Your task to perform on an android device: Open Youtube and go to "Your channel" Image 0: 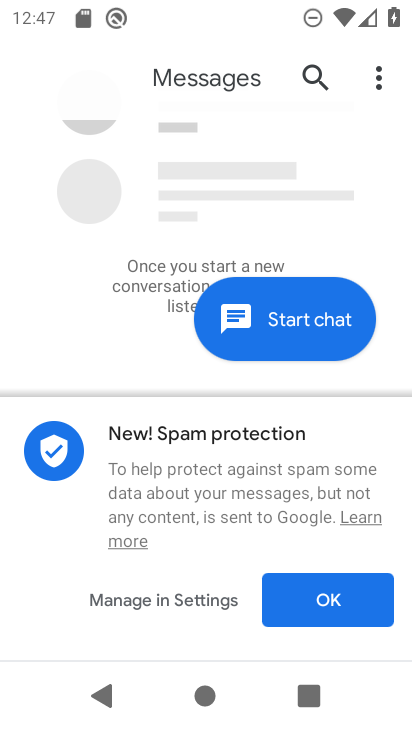
Step 0: click (378, 562)
Your task to perform on an android device: Open Youtube and go to "Your channel" Image 1: 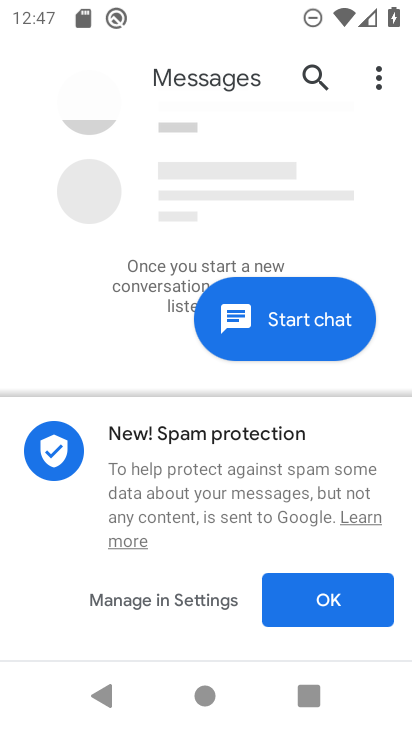
Step 1: press home button
Your task to perform on an android device: Open Youtube and go to "Your channel" Image 2: 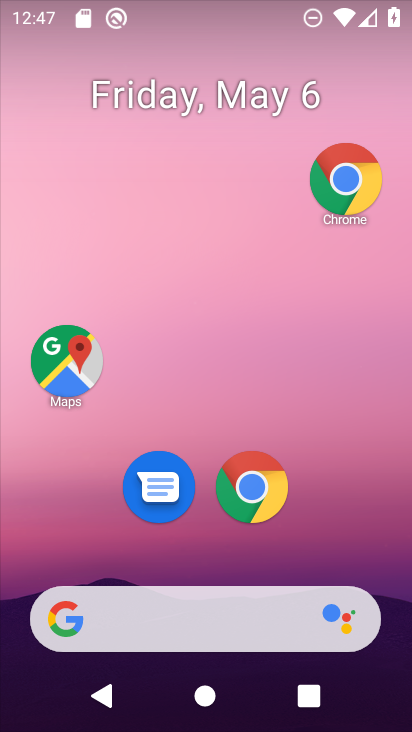
Step 2: drag from (318, 533) to (311, 101)
Your task to perform on an android device: Open Youtube and go to "Your channel" Image 3: 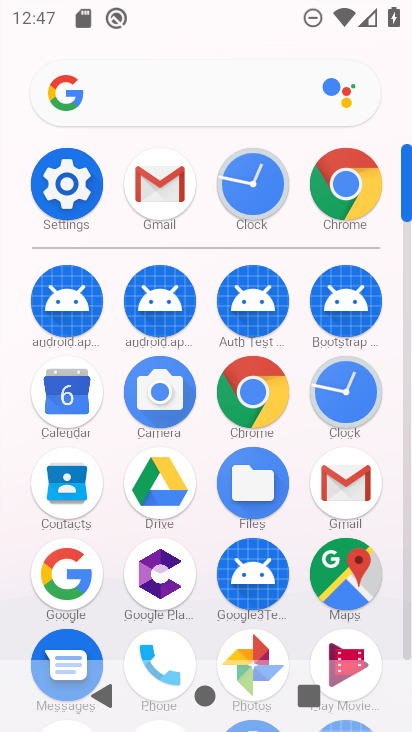
Step 3: click (410, 506)
Your task to perform on an android device: Open Youtube and go to "Your channel" Image 4: 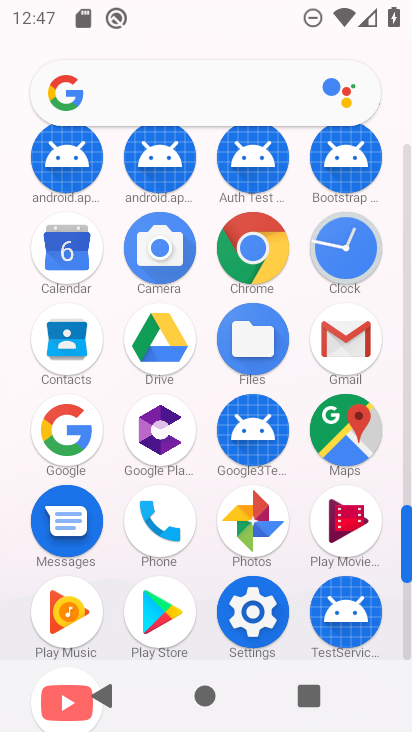
Step 4: click (408, 649)
Your task to perform on an android device: Open Youtube and go to "Your channel" Image 5: 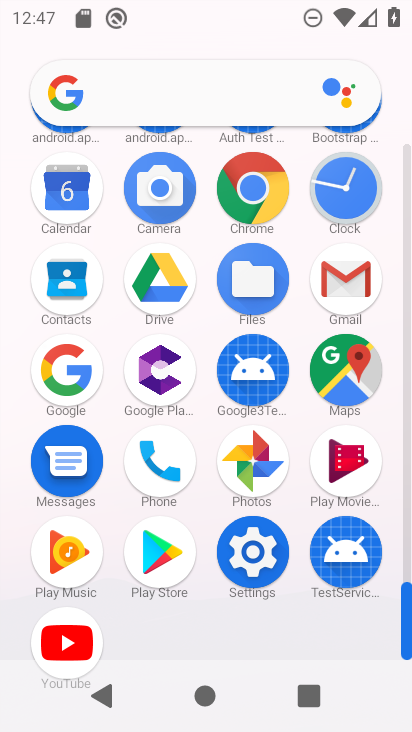
Step 5: click (46, 634)
Your task to perform on an android device: Open Youtube and go to "Your channel" Image 6: 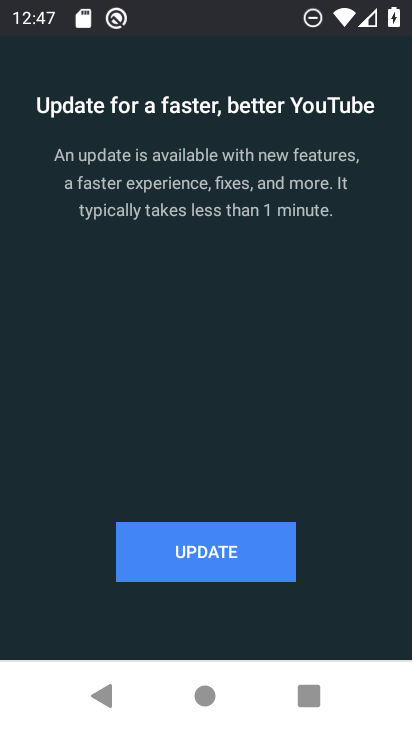
Step 6: click (244, 555)
Your task to perform on an android device: Open Youtube and go to "Your channel" Image 7: 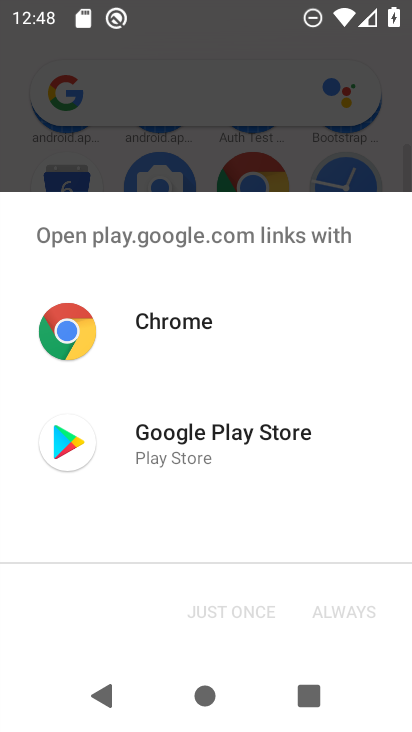
Step 7: click (188, 434)
Your task to perform on an android device: Open Youtube and go to "Your channel" Image 8: 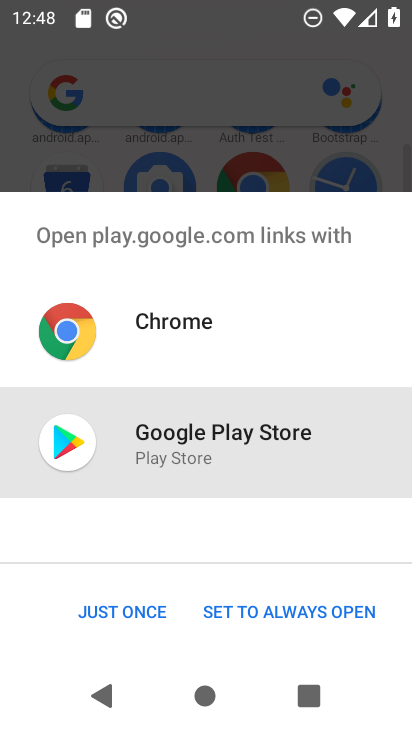
Step 8: click (129, 612)
Your task to perform on an android device: Open Youtube and go to "Your channel" Image 9: 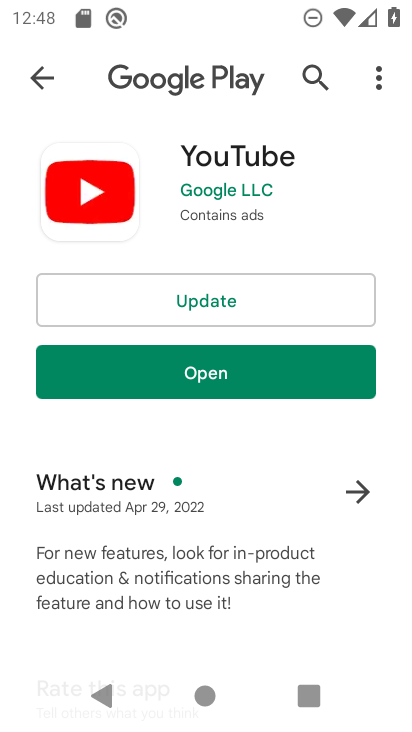
Step 9: click (218, 305)
Your task to perform on an android device: Open Youtube and go to "Your channel" Image 10: 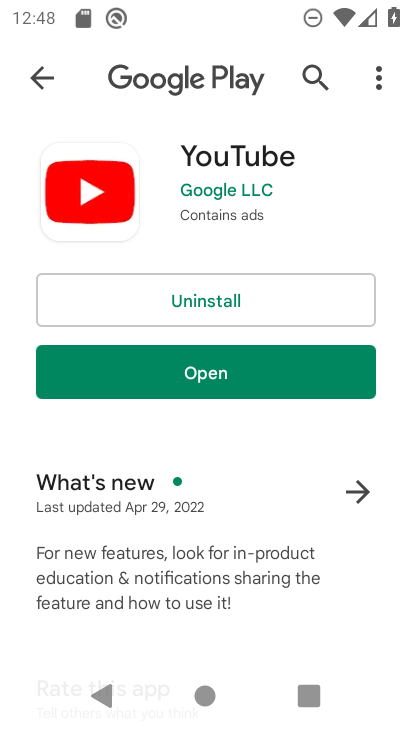
Step 10: click (264, 385)
Your task to perform on an android device: Open Youtube and go to "Your channel" Image 11: 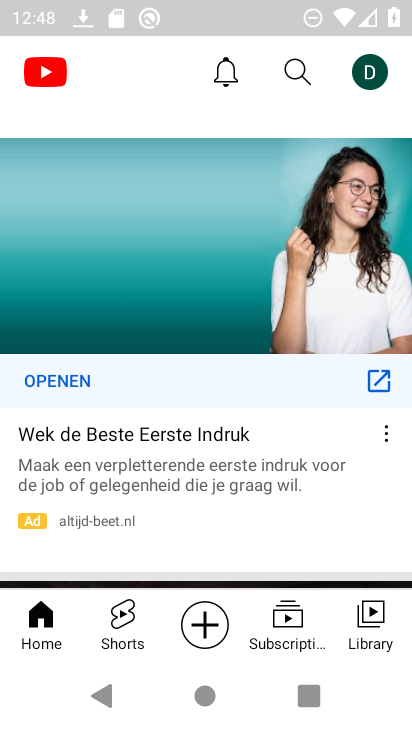
Step 11: click (370, 69)
Your task to perform on an android device: Open Youtube and go to "Your channel" Image 12: 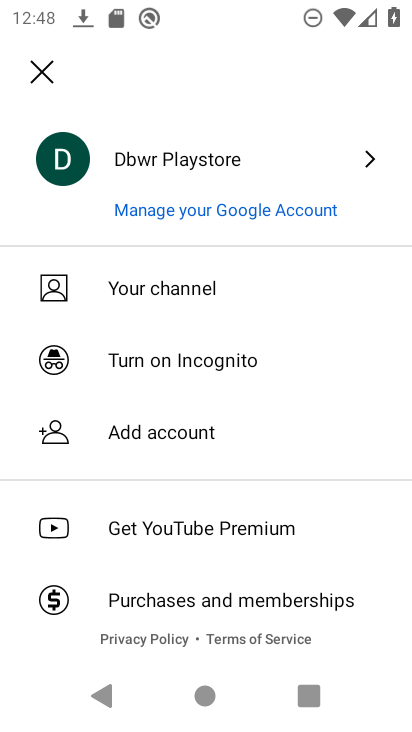
Step 12: click (220, 310)
Your task to perform on an android device: Open Youtube and go to "Your channel" Image 13: 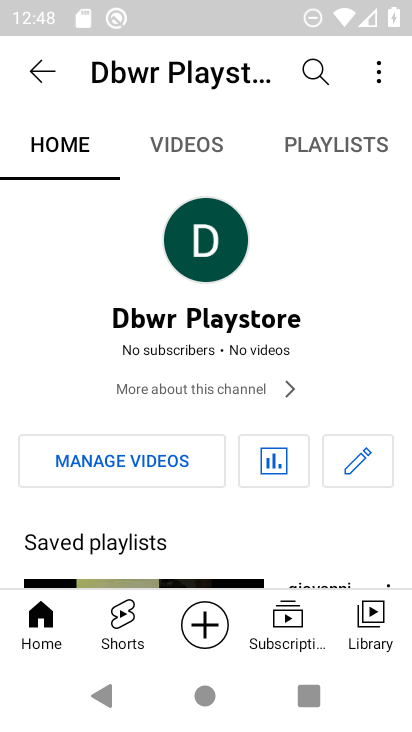
Step 13: task complete